Your task to perform on an android device: open app "HBO Max: Stream TV & Movies" (install if not already installed) Image 0: 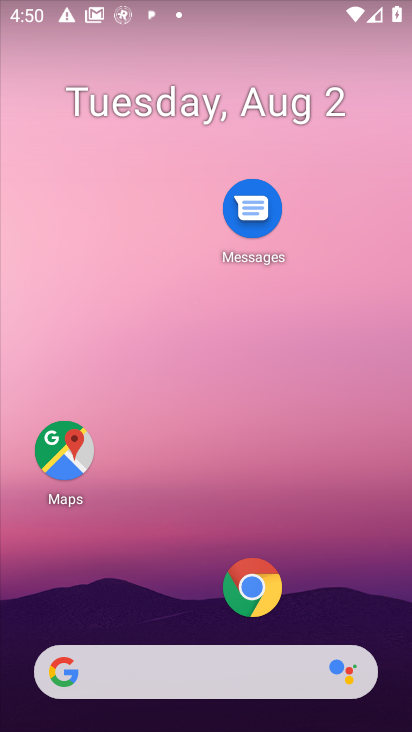
Step 0: drag from (141, 587) to (164, 100)
Your task to perform on an android device: open app "HBO Max: Stream TV & Movies" (install if not already installed) Image 1: 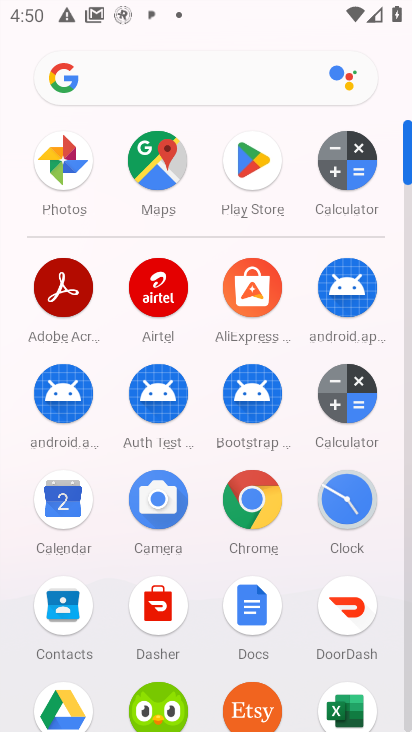
Step 1: click (258, 194)
Your task to perform on an android device: open app "HBO Max: Stream TV & Movies" (install if not already installed) Image 2: 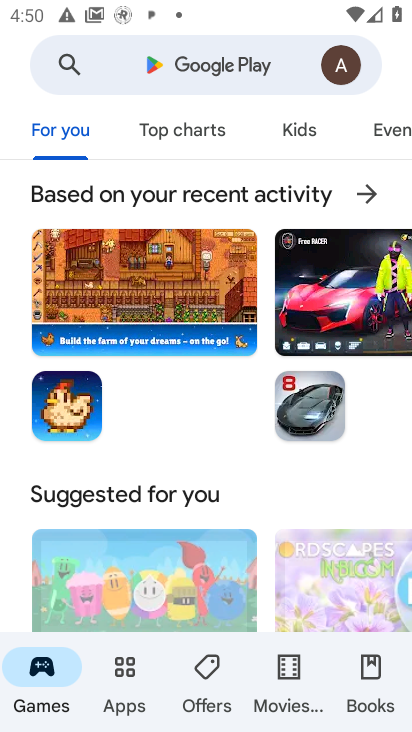
Step 2: click (263, 62)
Your task to perform on an android device: open app "HBO Max: Stream TV & Movies" (install if not already installed) Image 3: 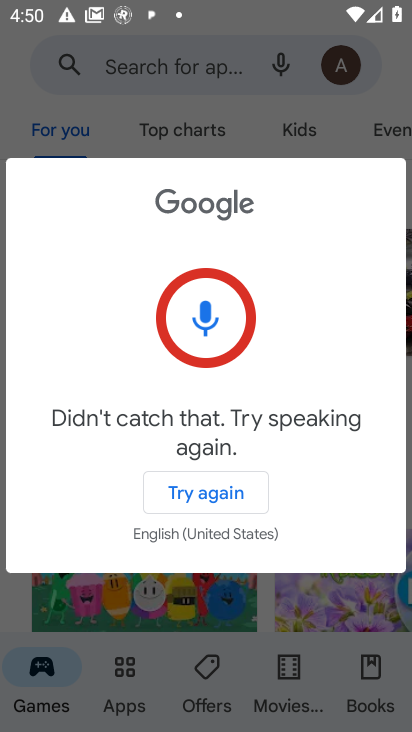
Step 3: click (165, 104)
Your task to perform on an android device: open app "HBO Max: Stream TV & Movies" (install if not already installed) Image 4: 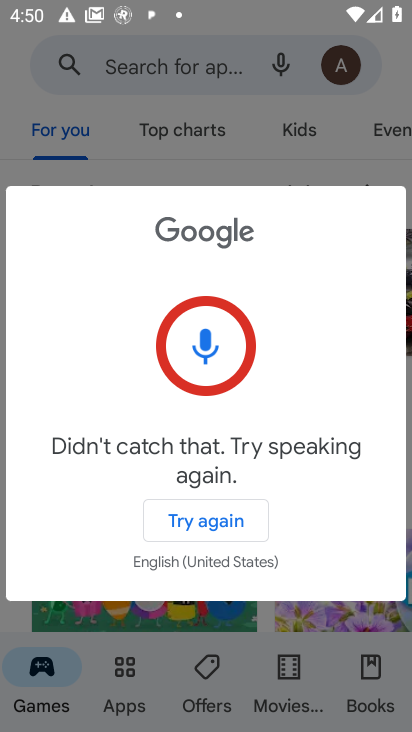
Step 4: click (165, 58)
Your task to perform on an android device: open app "HBO Max: Stream TV & Movies" (install if not already installed) Image 5: 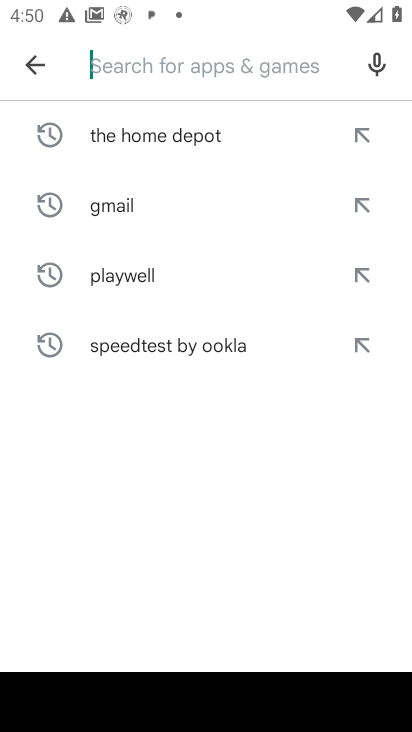
Step 5: type "HBO Max: Stream TV & Movies"
Your task to perform on an android device: open app "HBO Max: Stream TV & Movies" (install if not already installed) Image 6: 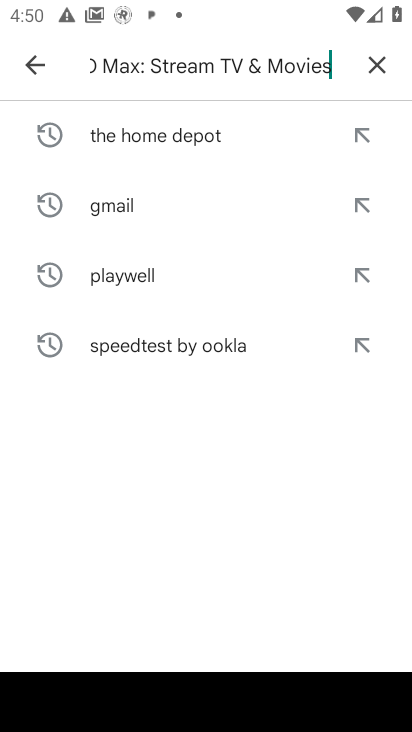
Step 6: type ""
Your task to perform on an android device: open app "HBO Max: Stream TV & Movies" (install if not already installed) Image 7: 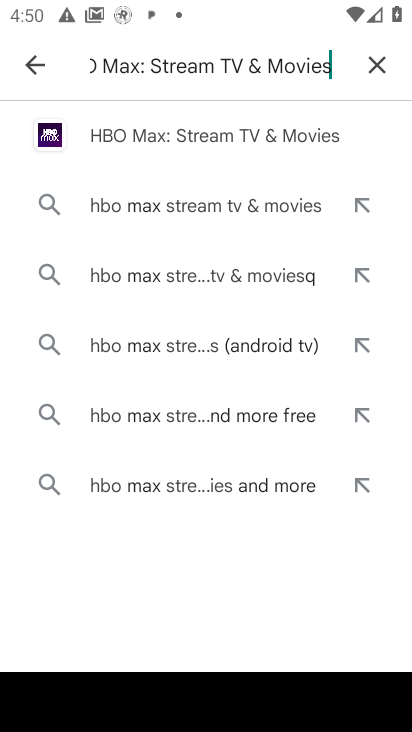
Step 7: click (136, 136)
Your task to perform on an android device: open app "HBO Max: Stream TV & Movies" (install if not already installed) Image 8: 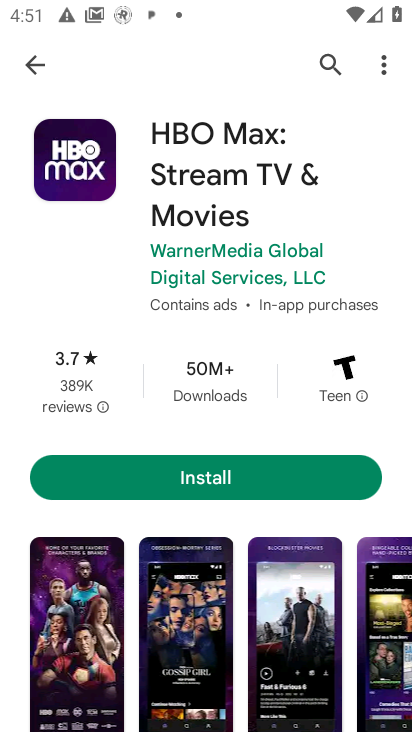
Step 8: click (316, 495)
Your task to perform on an android device: open app "HBO Max: Stream TV & Movies" (install if not already installed) Image 9: 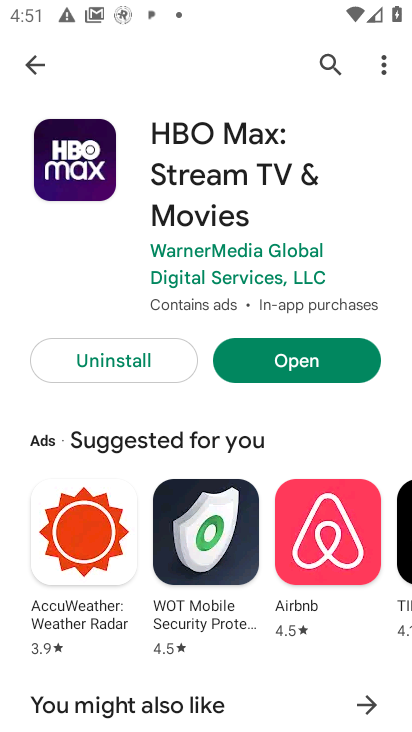
Step 9: click (333, 370)
Your task to perform on an android device: open app "HBO Max: Stream TV & Movies" (install if not already installed) Image 10: 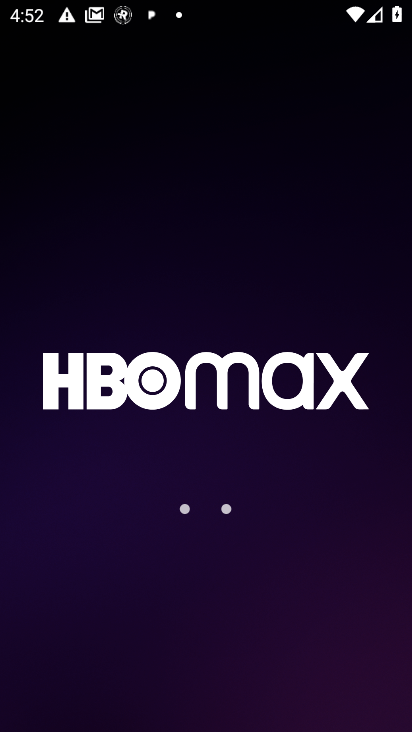
Step 10: task complete